Your task to perform on an android device: Open Google Maps and go to "Timeline" Image 0: 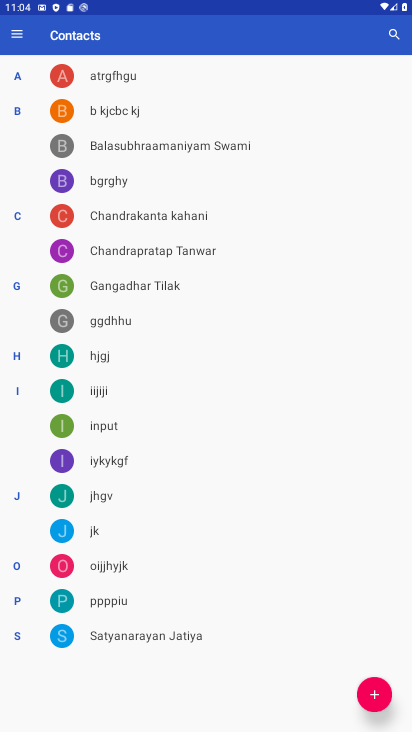
Step 0: press home button
Your task to perform on an android device: Open Google Maps and go to "Timeline" Image 1: 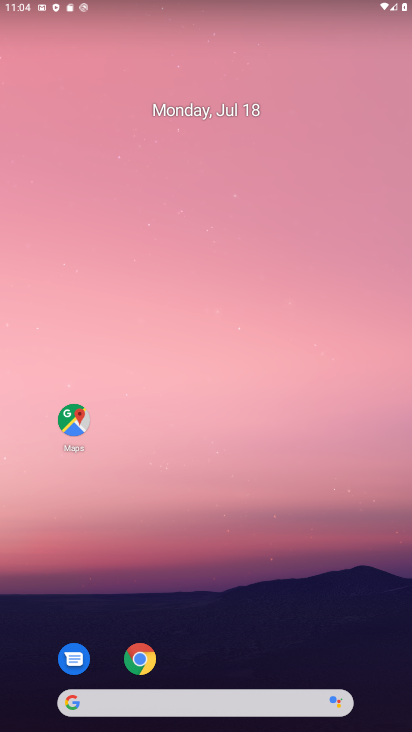
Step 1: drag from (189, 679) to (137, 180)
Your task to perform on an android device: Open Google Maps and go to "Timeline" Image 2: 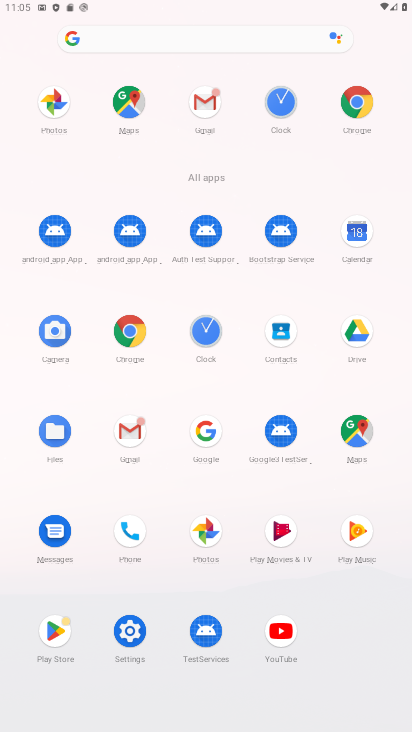
Step 2: click (357, 429)
Your task to perform on an android device: Open Google Maps and go to "Timeline" Image 3: 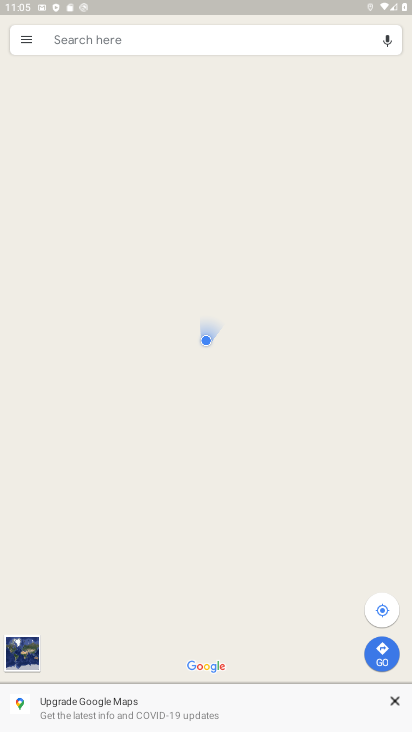
Step 3: click (26, 40)
Your task to perform on an android device: Open Google Maps and go to "Timeline" Image 4: 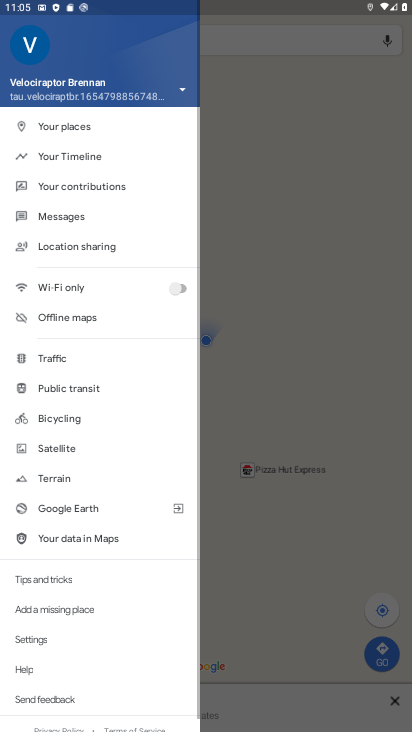
Step 4: click (67, 157)
Your task to perform on an android device: Open Google Maps and go to "Timeline" Image 5: 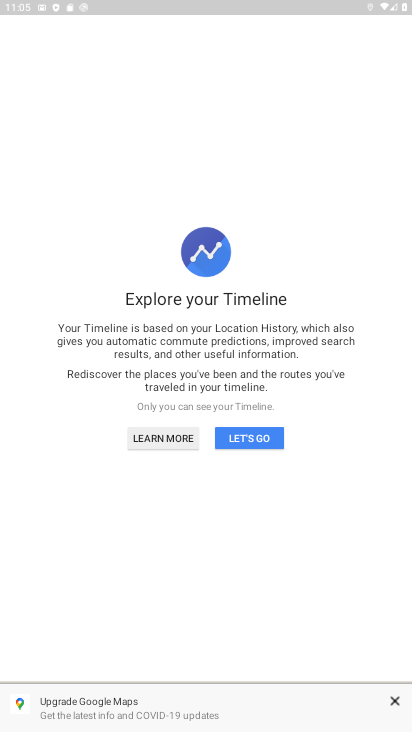
Step 5: click (244, 428)
Your task to perform on an android device: Open Google Maps and go to "Timeline" Image 6: 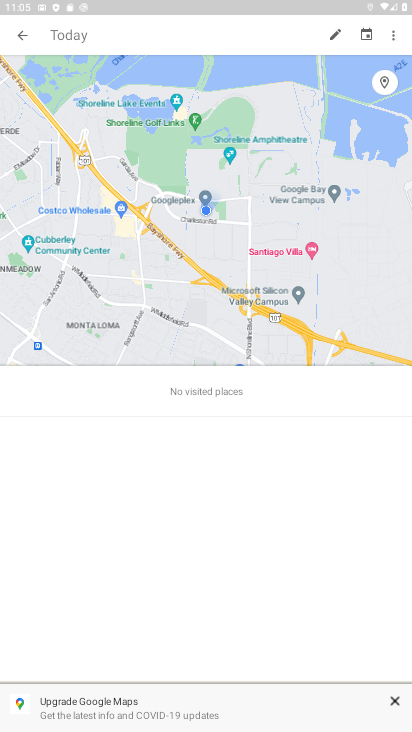
Step 6: task complete